Your task to perform on an android device: Open accessibility settings Image 0: 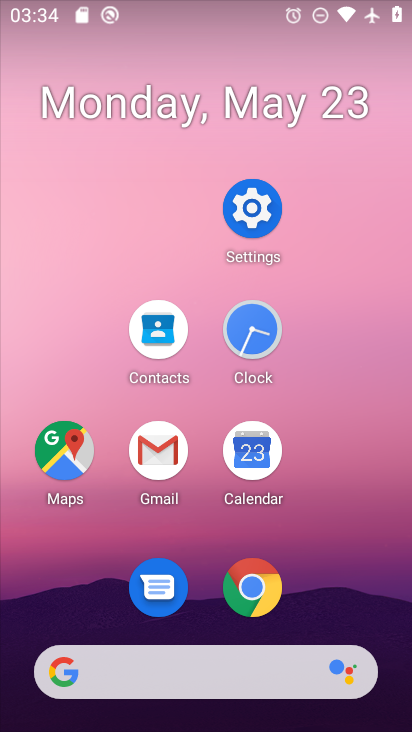
Step 0: click (228, 208)
Your task to perform on an android device: Open accessibility settings Image 1: 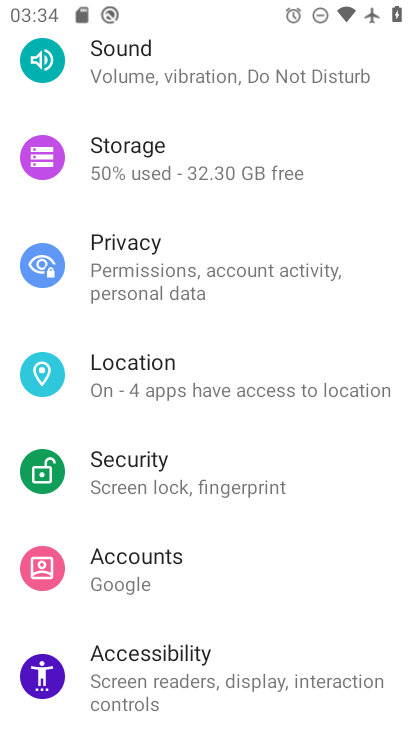
Step 1: click (170, 652)
Your task to perform on an android device: Open accessibility settings Image 2: 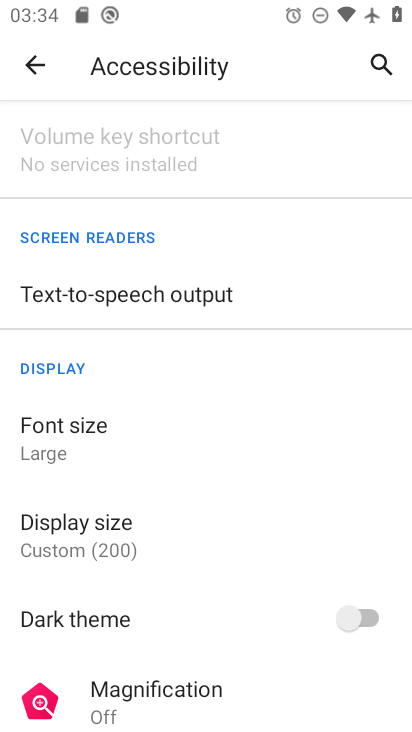
Step 2: task complete